Your task to perform on an android device: Search for "energizer triple a" on ebay, select the first entry, add it to the cart, then select checkout. Image 0: 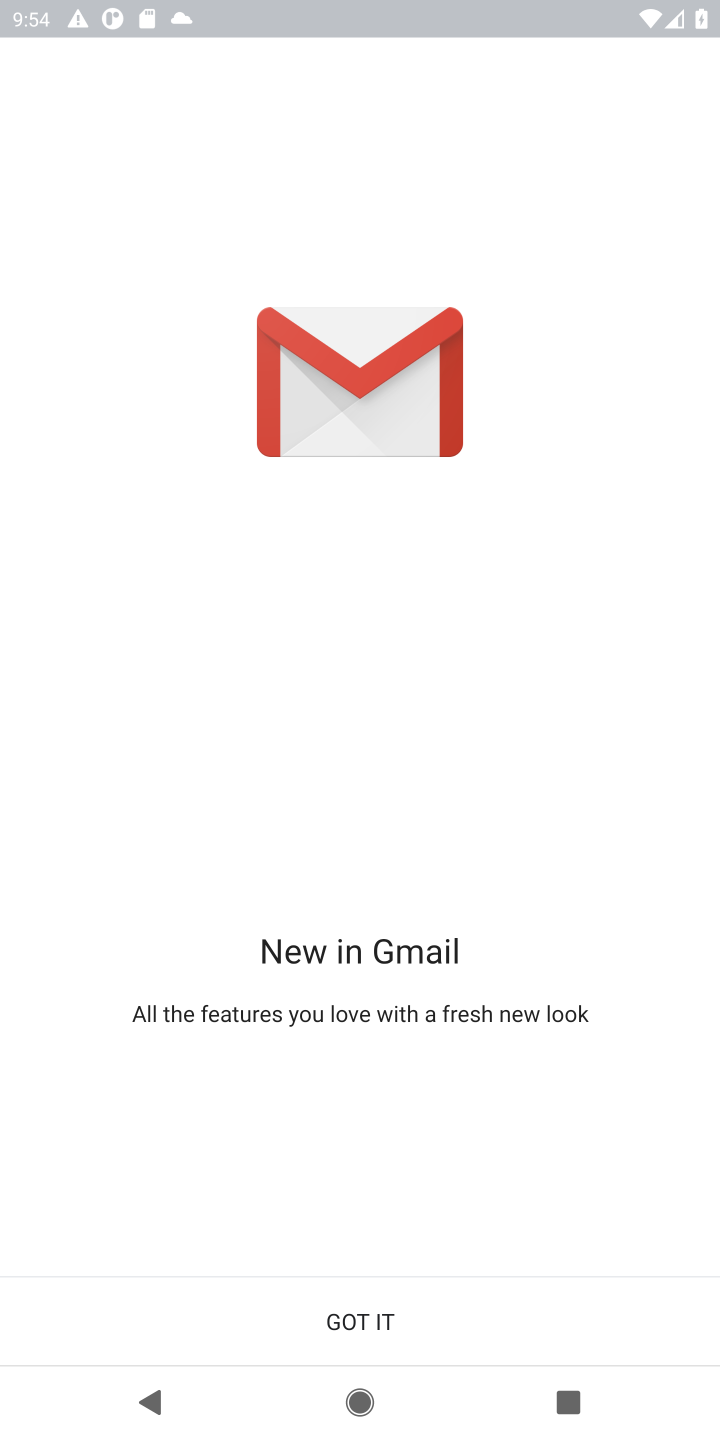
Step 0: press home button
Your task to perform on an android device: Search for "energizer triple a" on ebay, select the first entry, add it to the cart, then select checkout. Image 1: 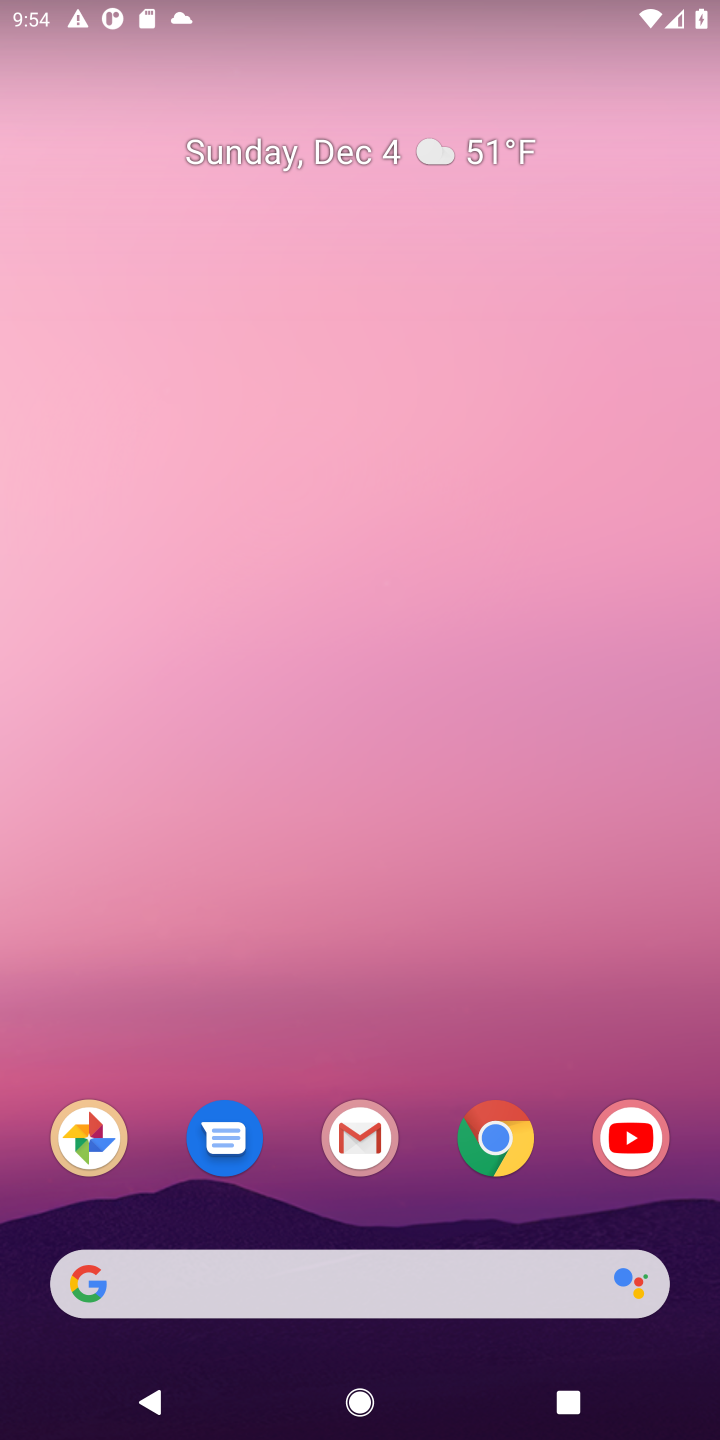
Step 1: click (489, 1123)
Your task to perform on an android device: Search for "energizer triple a" on ebay, select the first entry, add it to the cart, then select checkout. Image 2: 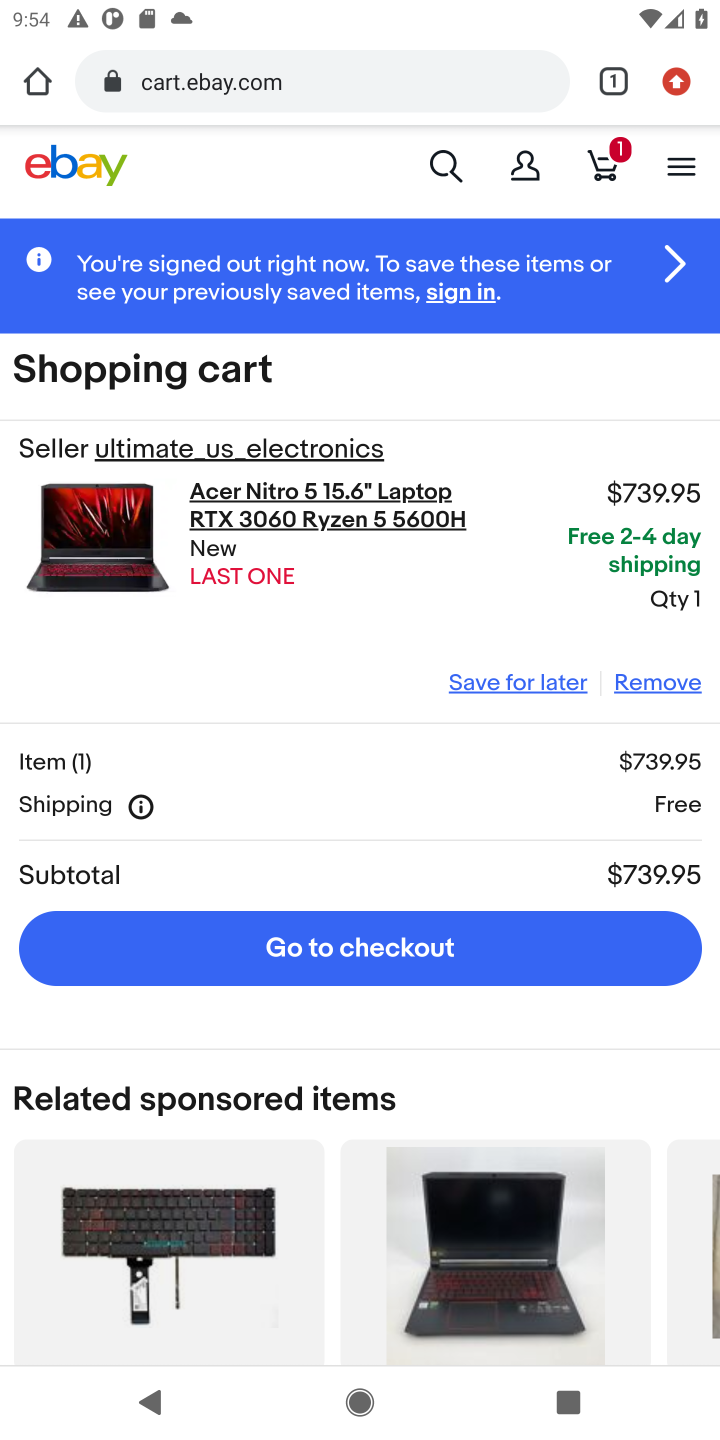
Step 2: click (392, 78)
Your task to perform on an android device: Search for "energizer triple a" on ebay, select the first entry, add it to the cart, then select checkout. Image 3: 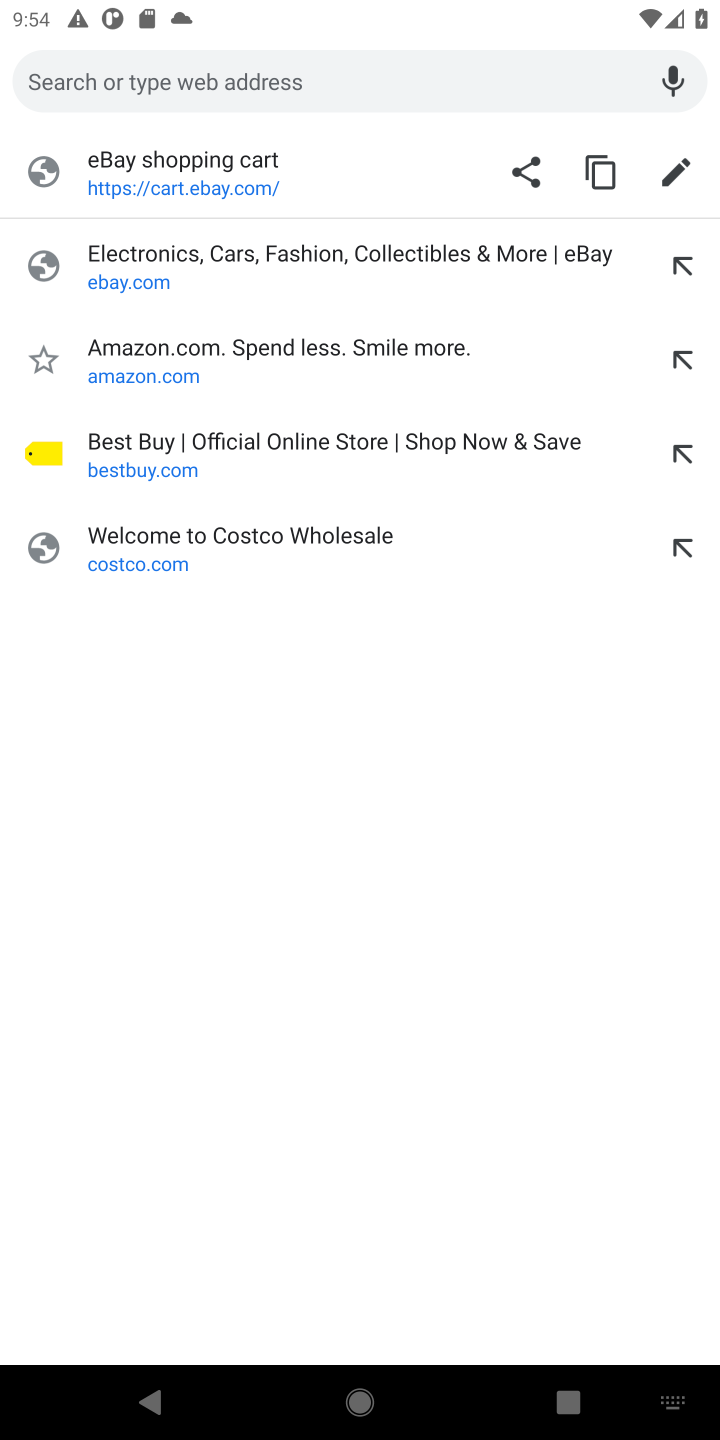
Step 3: click (228, 251)
Your task to perform on an android device: Search for "energizer triple a" on ebay, select the first entry, add it to the cart, then select checkout. Image 4: 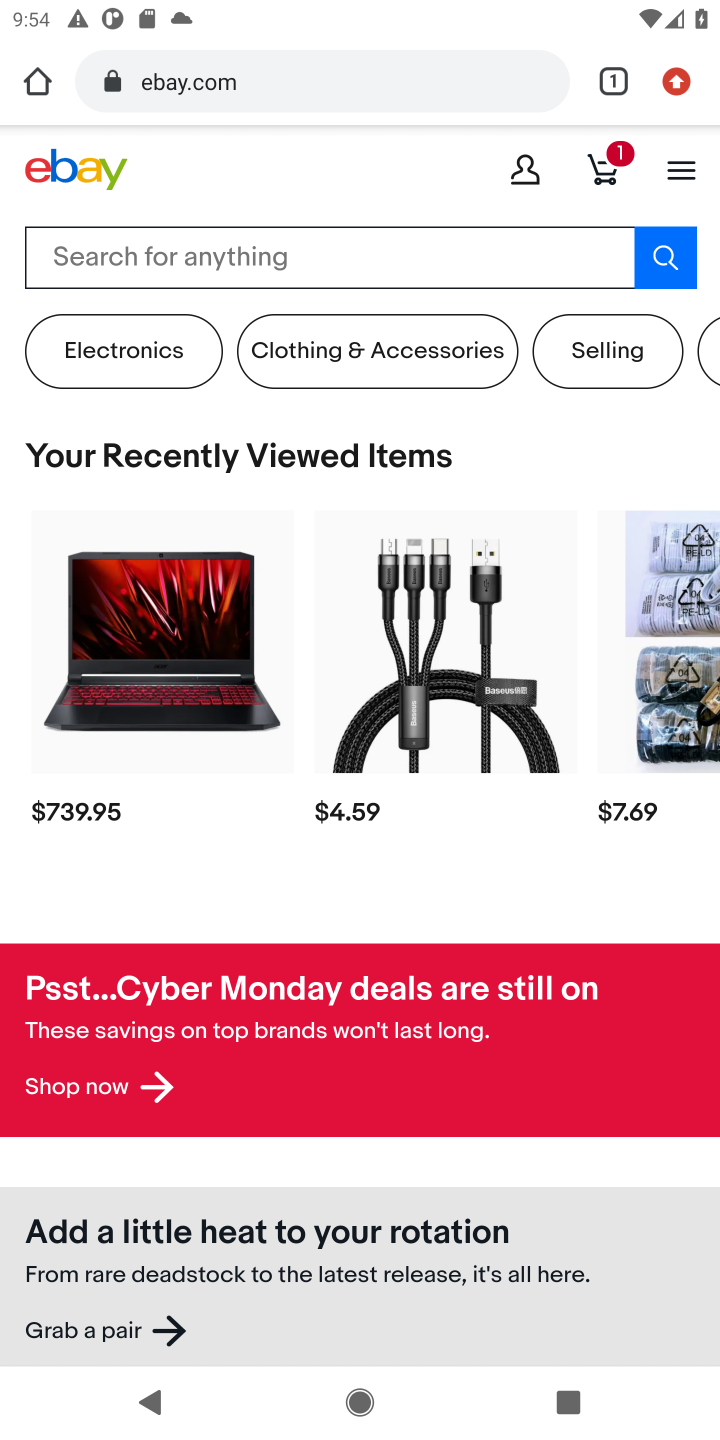
Step 4: click (519, 229)
Your task to perform on an android device: Search for "energizer triple a" on ebay, select the first entry, add it to the cart, then select checkout. Image 5: 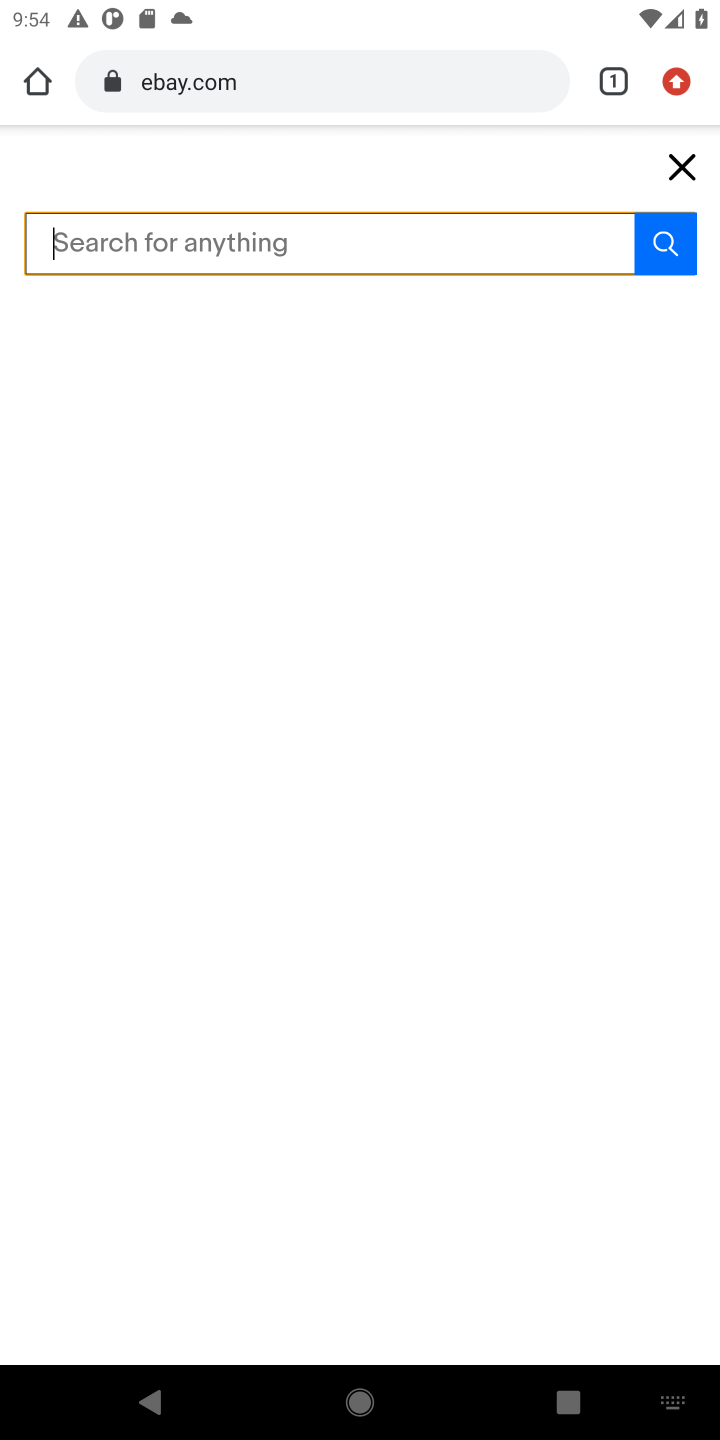
Step 5: type "energizer triple a"
Your task to perform on an android device: Search for "energizer triple a" on ebay, select the first entry, add it to the cart, then select checkout. Image 6: 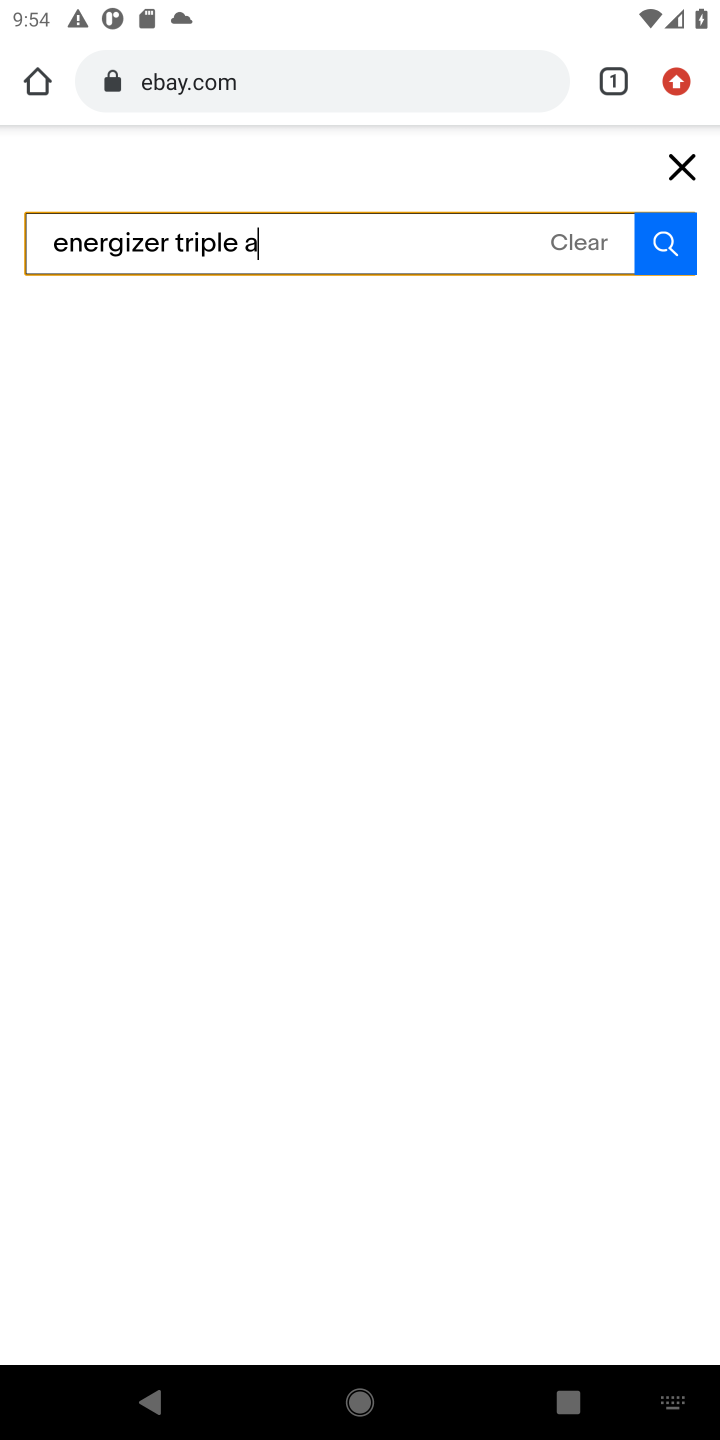
Step 6: press enter
Your task to perform on an android device: Search for "energizer triple a" on ebay, select the first entry, add it to the cart, then select checkout. Image 7: 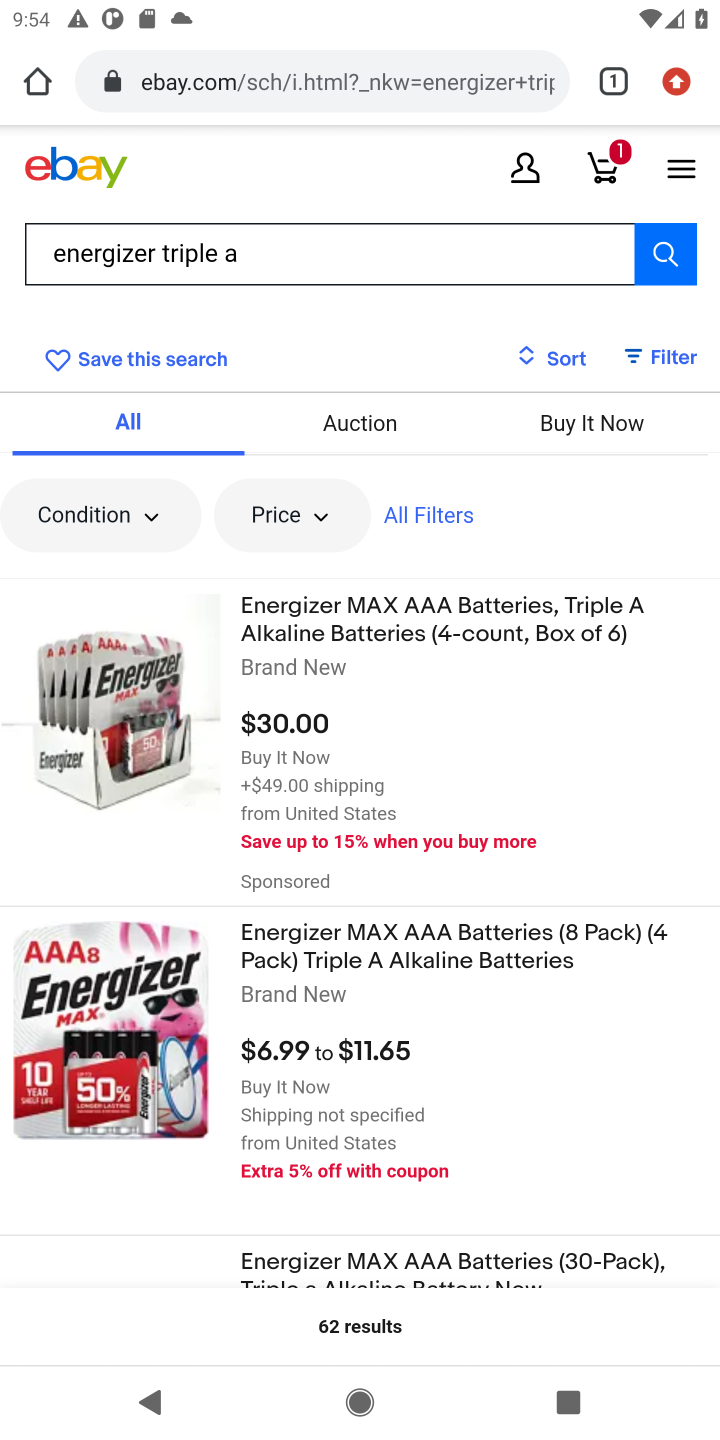
Step 7: click (117, 736)
Your task to perform on an android device: Search for "energizer triple a" on ebay, select the first entry, add it to the cart, then select checkout. Image 8: 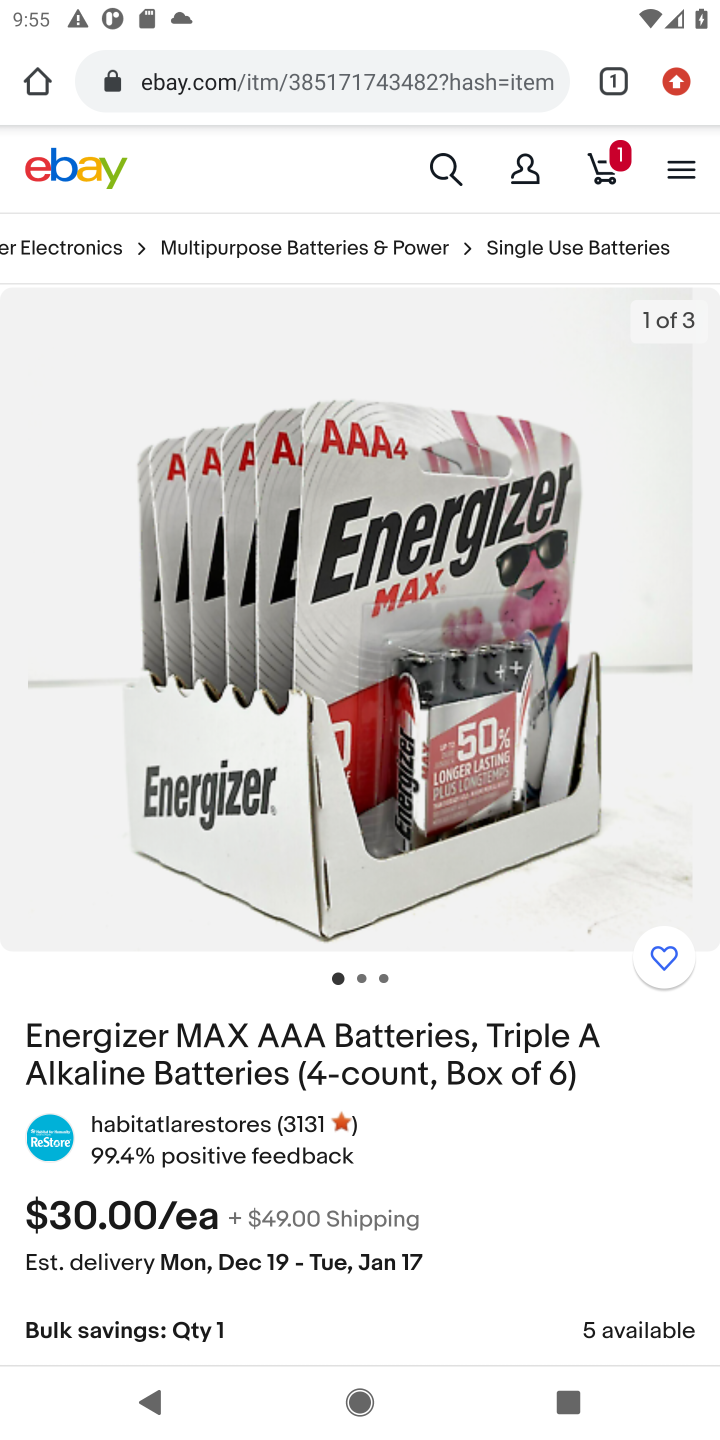
Step 8: drag from (525, 1037) to (603, 580)
Your task to perform on an android device: Search for "energizer triple a" on ebay, select the first entry, add it to the cart, then select checkout. Image 9: 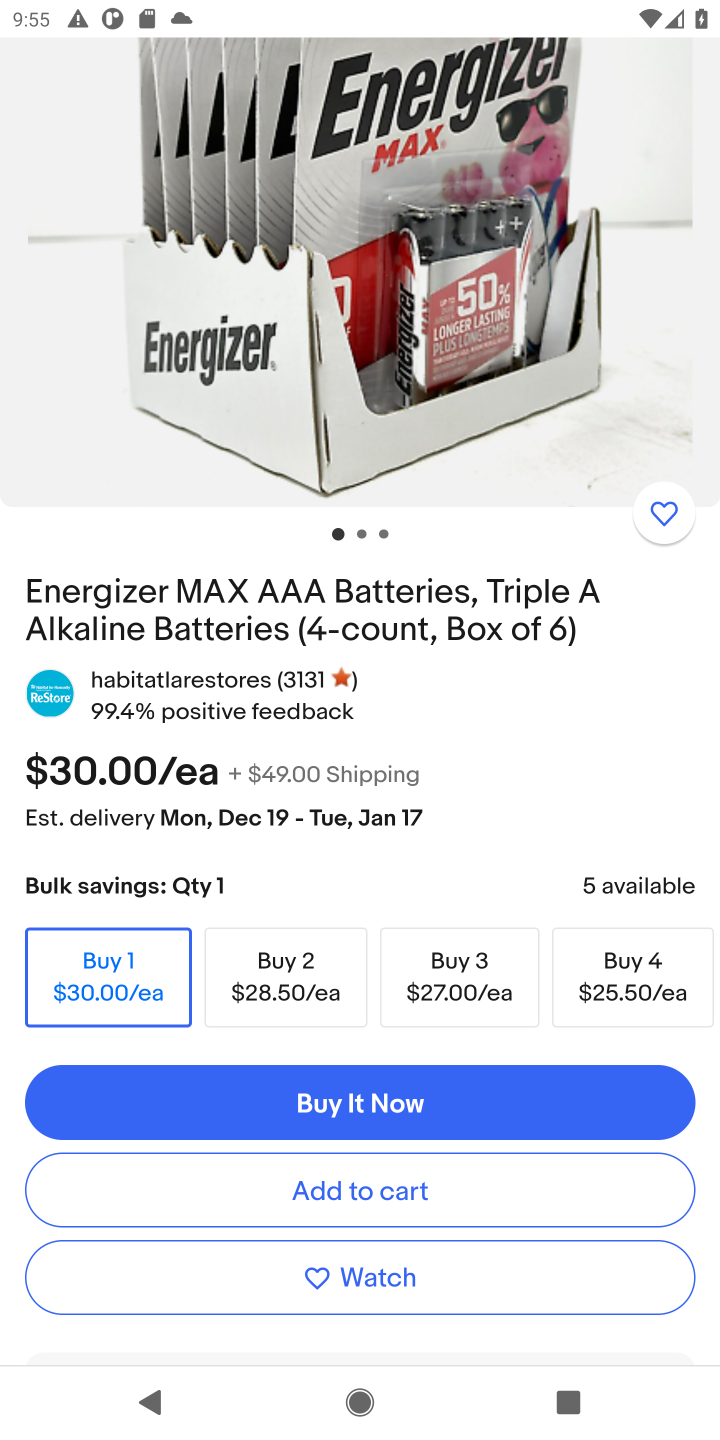
Step 9: click (407, 1194)
Your task to perform on an android device: Search for "energizer triple a" on ebay, select the first entry, add it to the cart, then select checkout. Image 10: 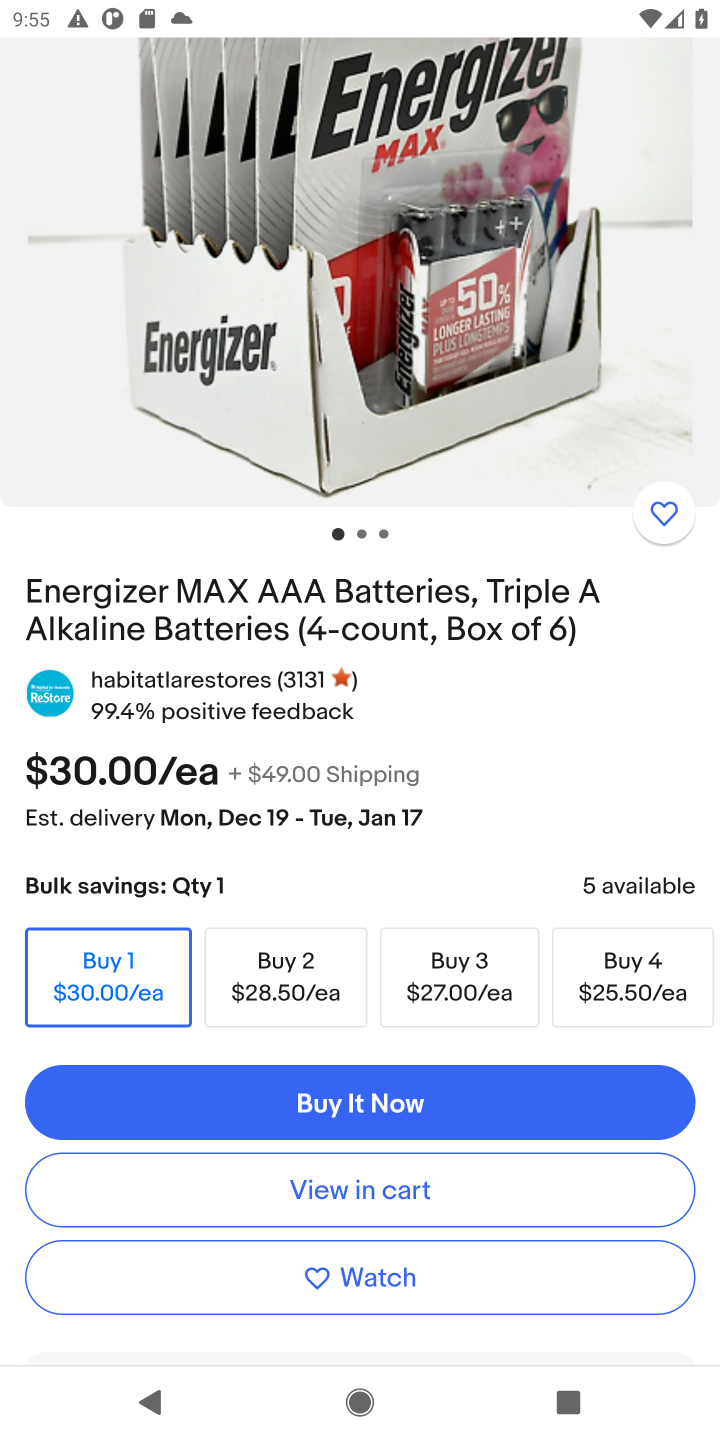
Step 10: click (405, 1193)
Your task to perform on an android device: Search for "energizer triple a" on ebay, select the first entry, add it to the cart, then select checkout. Image 11: 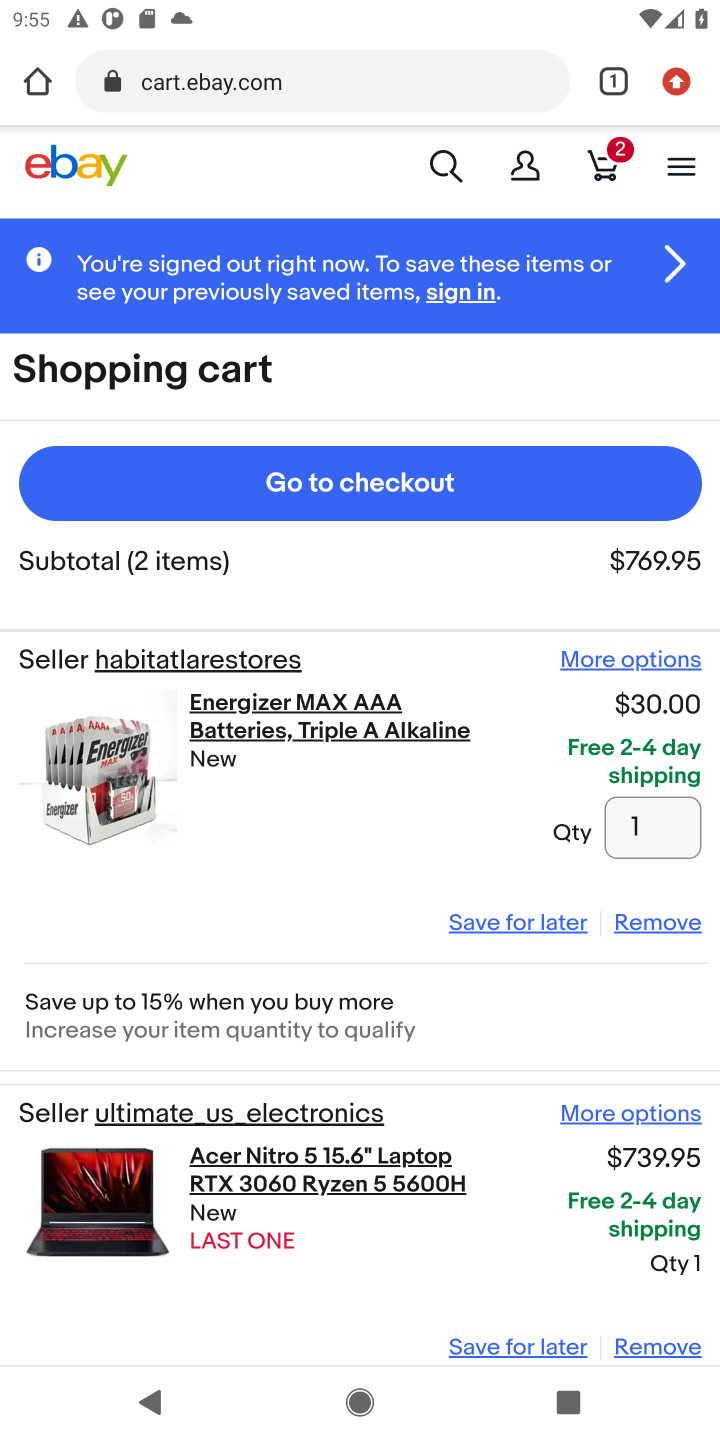
Step 11: click (398, 476)
Your task to perform on an android device: Search for "energizer triple a" on ebay, select the first entry, add it to the cart, then select checkout. Image 12: 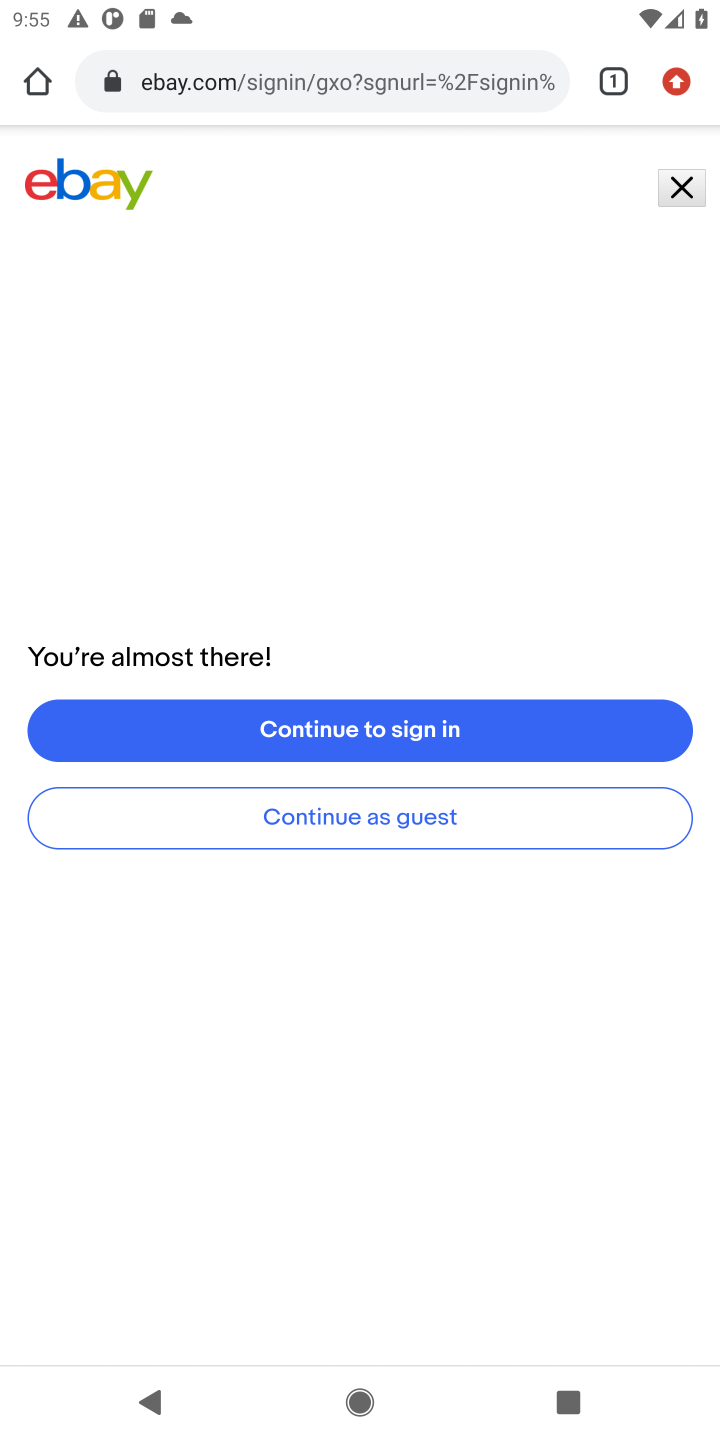
Step 12: task complete